Your task to perform on an android device: Set an alarm for 8am Image 0: 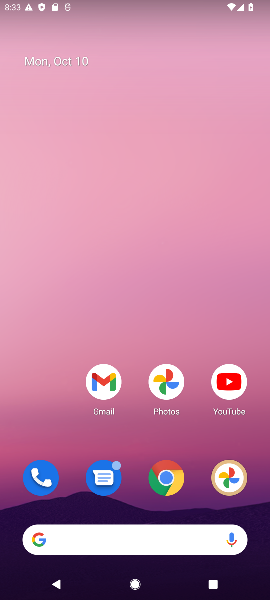
Step 0: drag from (131, 506) to (81, 135)
Your task to perform on an android device: Set an alarm for 8am Image 1: 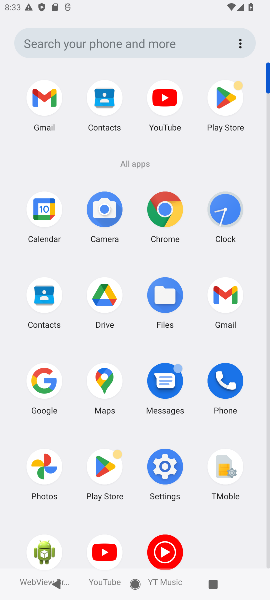
Step 1: click (226, 220)
Your task to perform on an android device: Set an alarm for 8am Image 2: 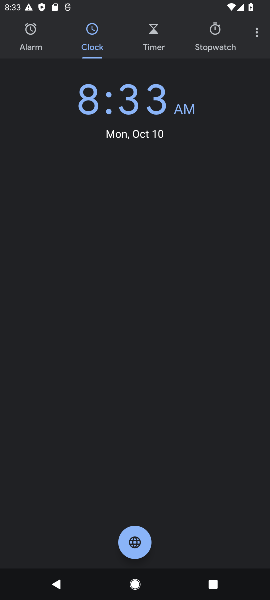
Step 2: click (32, 37)
Your task to perform on an android device: Set an alarm for 8am Image 3: 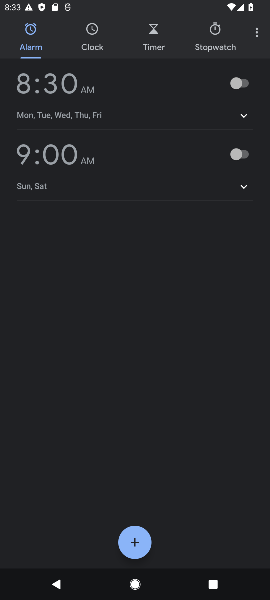
Step 3: click (57, 83)
Your task to perform on an android device: Set an alarm for 8am Image 4: 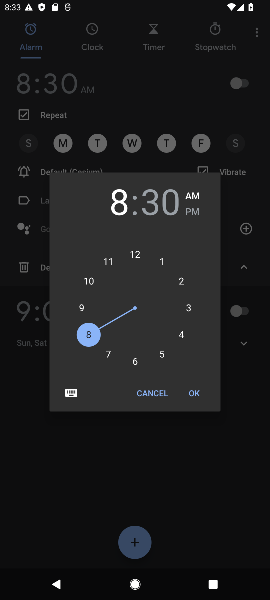
Step 4: click (152, 206)
Your task to perform on an android device: Set an alarm for 8am Image 5: 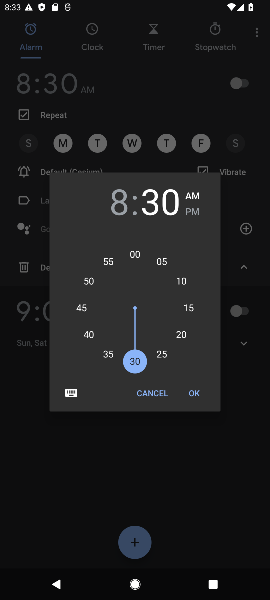
Step 5: click (132, 258)
Your task to perform on an android device: Set an alarm for 8am Image 6: 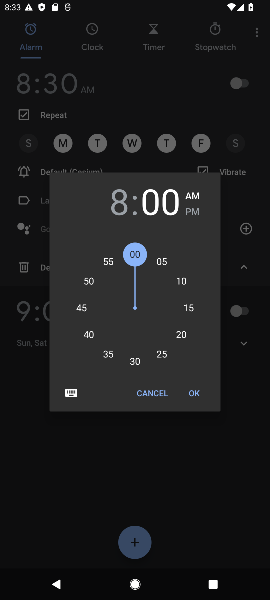
Step 6: click (196, 390)
Your task to perform on an android device: Set an alarm for 8am Image 7: 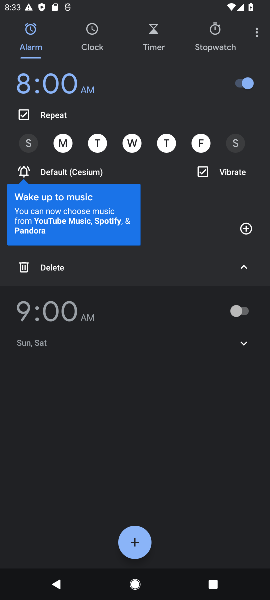
Step 7: task complete